Your task to perform on an android device: check out phone information Image 0: 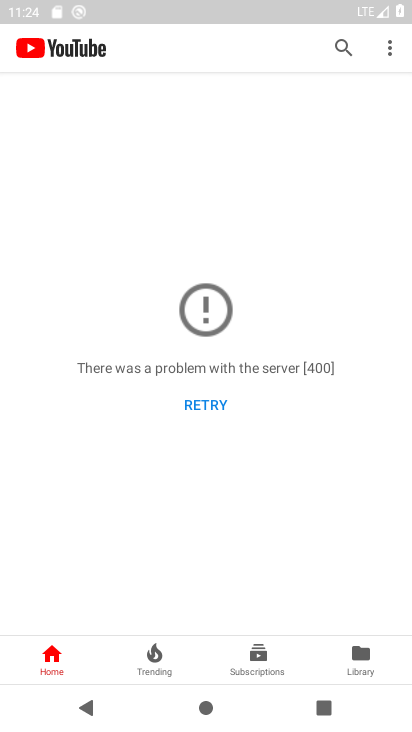
Step 0: press home button
Your task to perform on an android device: check out phone information Image 1: 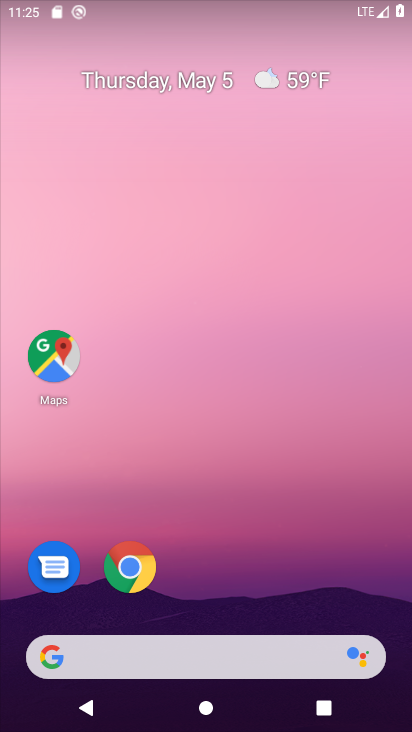
Step 1: drag from (311, 621) to (324, 15)
Your task to perform on an android device: check out phone information Image 2: 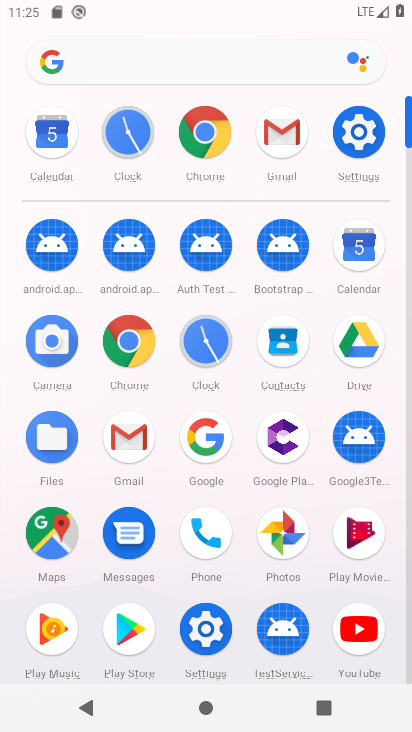
Step 2: click (351, 137)
Your task to perform on an android device: check out phone information Image 3: 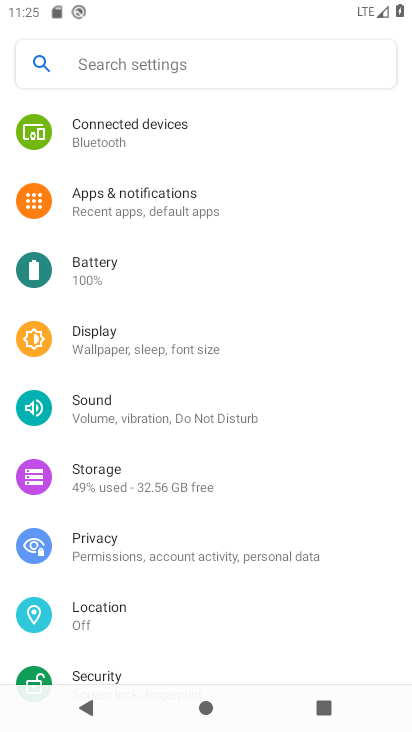
Step 3: drag from (340, 593) to (319, 92)
Your task to perform on an android device: check out phone information Image 4: 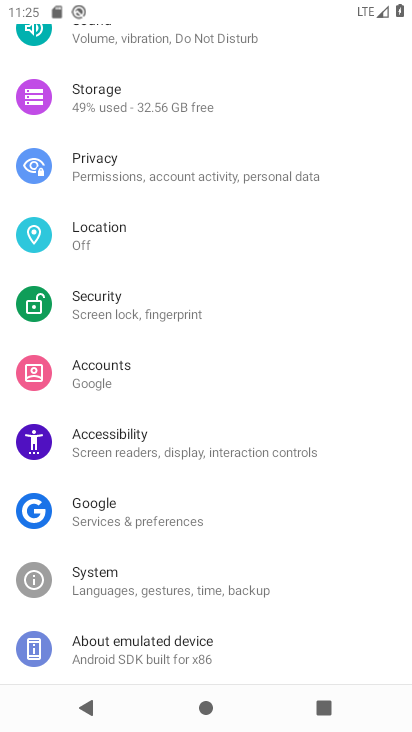
Step 4: click (143, 645)
Your task to perform on an android device: check out phone information Image 5: 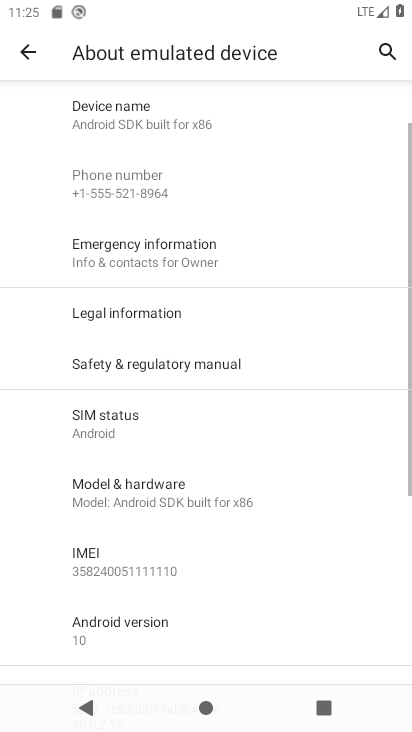
Step 5: task complete